Your task to perform on an android device: What's the weather going to be this weekend? Image 0: 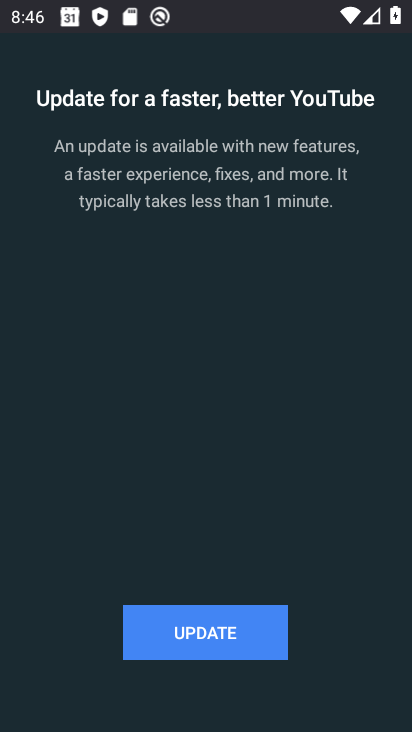
Step 0: press home button
Your task to perform on an android device: What's the weather going to be this weekend? Image 1: 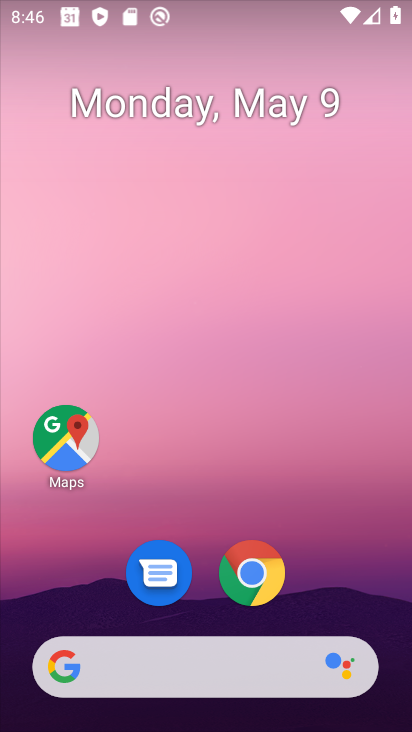
Step 1: drag from (324, 605) to (259, 204)
Your task to perform on an android device: What's the weather going to be this weekend? Image 2: 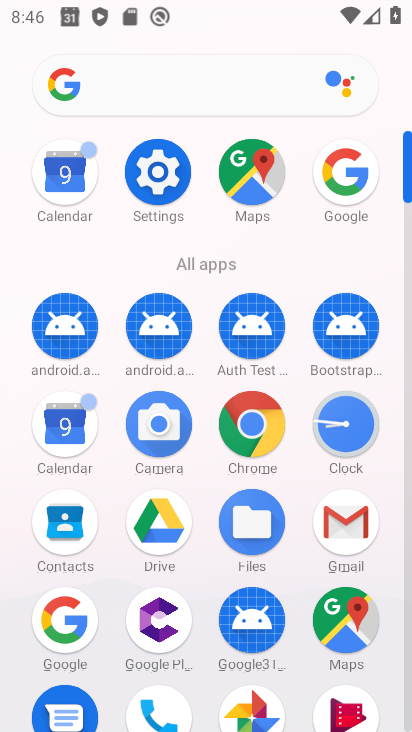
Step 2: click (131, 89)
Your task to perform on an android device: What's the weather going to be this weekend? Image 3: 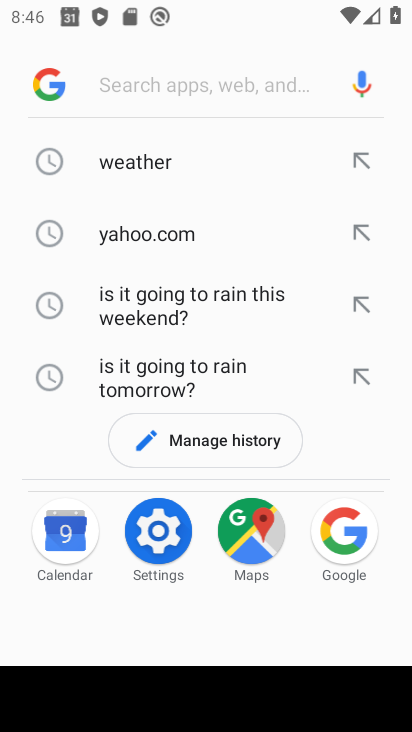
Step 3: type "what's the weather going to be this weekend"
Your task to perform on an android device: What's the weather going to be this weekend? Image 4: 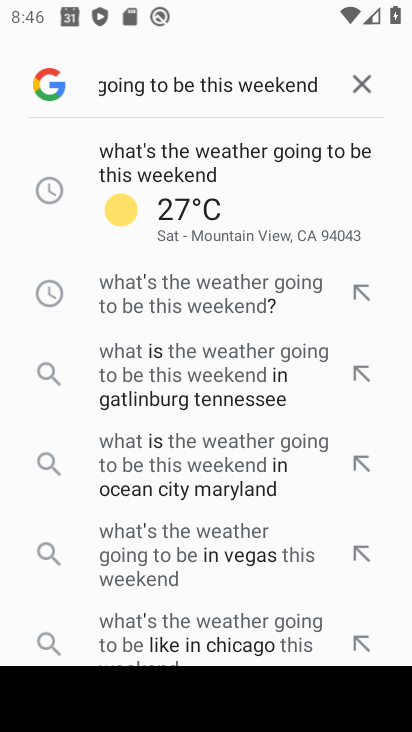
Step 4: click (176, 185)
Your task to perform on an android device: What's the weather going to be this weekend? Image 5: 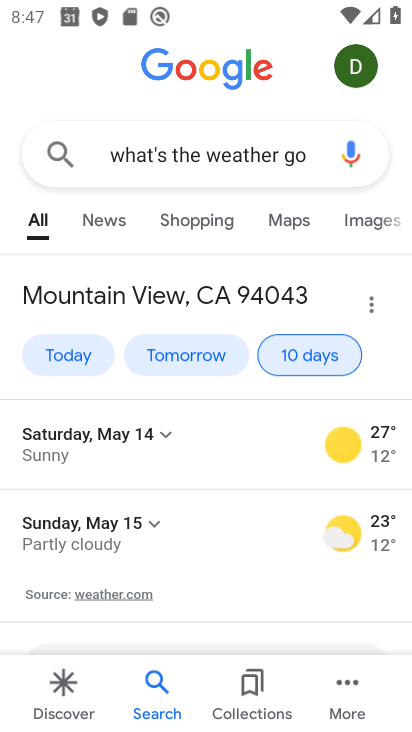
Step 5: task complete